Your task to perform on an android device: Show me the alarms in the clock app Image 0: 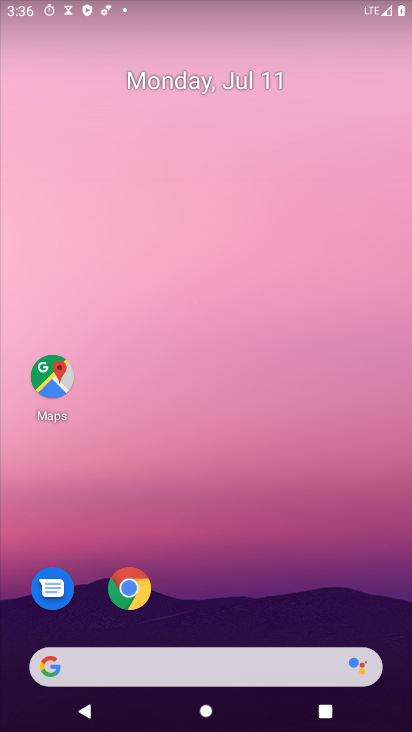
Step 0: drag from (285, 588) to (263, 3)
Your task to perform on an android device: Show me the alarms in the clock app Image 1: 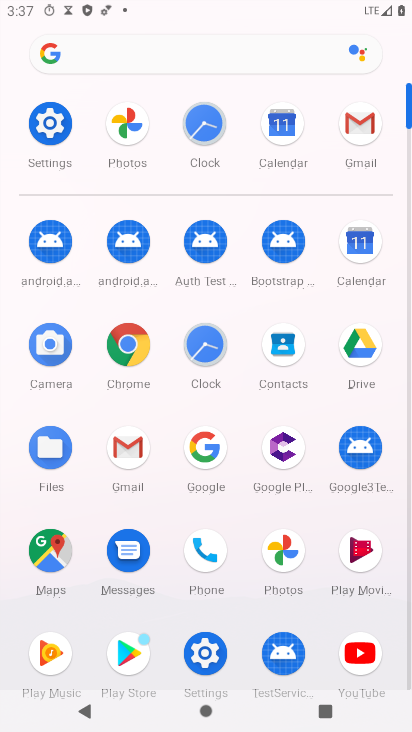
Step 1: click (204, 136)
Your task to perform on an android device: Show me the alarms in the clock app Image 2: 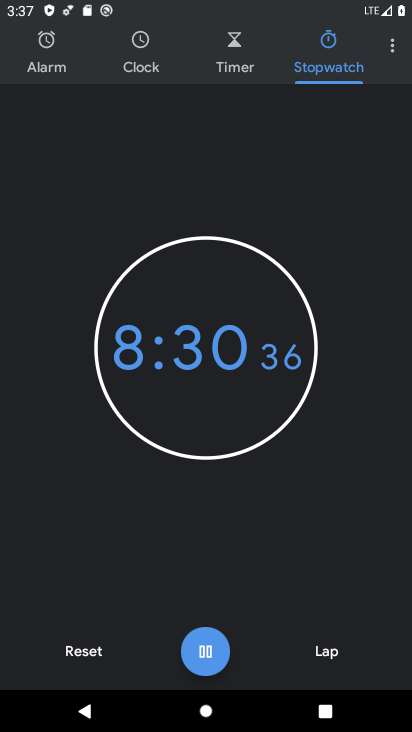
Step 2: click (50, 54)
Your task to perform on an android device: Show me the alarms in the clock app Image 3: 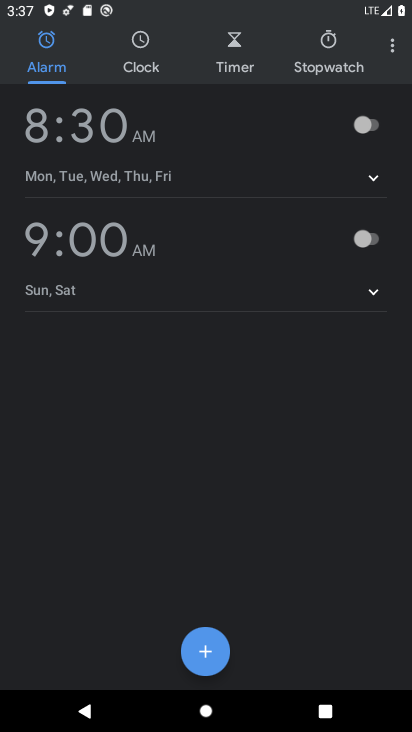
Step 3: task complete